Your task to perform on an android device: toggle location history Image 0: 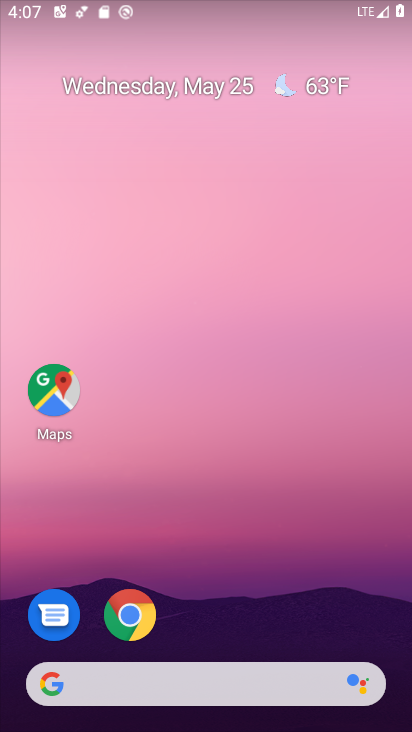
Step 0: drag from (259, 544) to (161, 26)
Your task to perform on an android device: toggle location history Image 1: 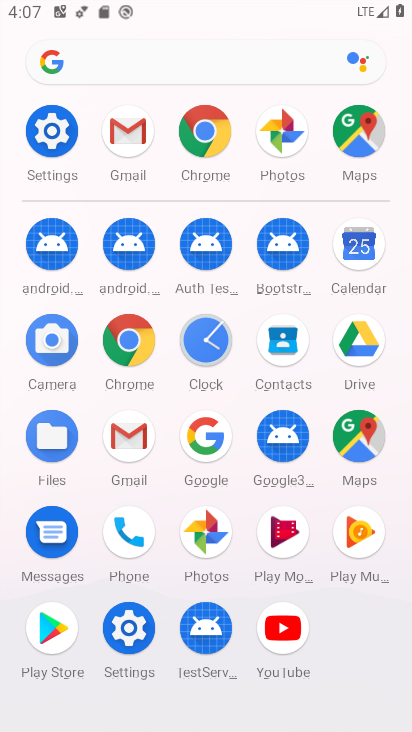
Step 1: click (56, 135)
Your task to perform on an android device: toggle location history Image 2: 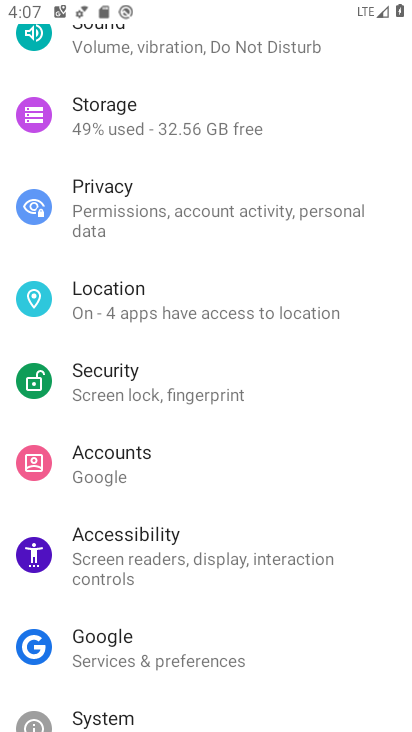
Step 2: click (172, 311)
Your task to perform on an android device: toggle location history Image 3: 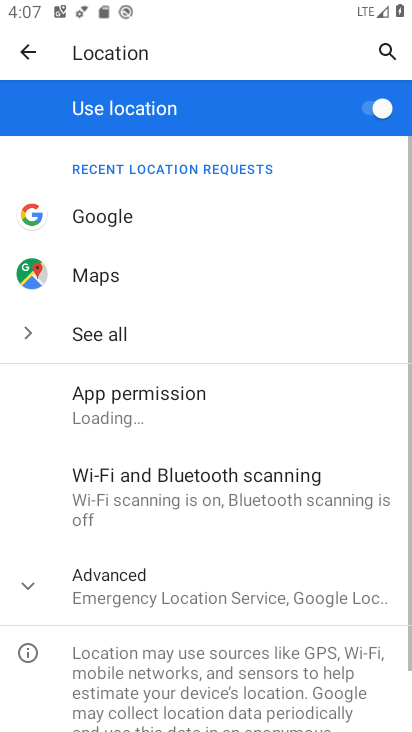
Step 3: click (203, 587)
Your task to perform on an android device: toggle location history Image 4: 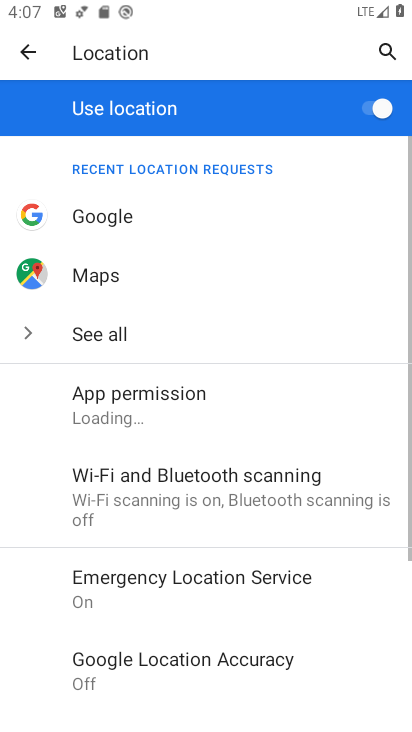
Step 4: drag from (249, 684) to (254, 366)
Your task to perform on an android device: toggle location history Image 5: 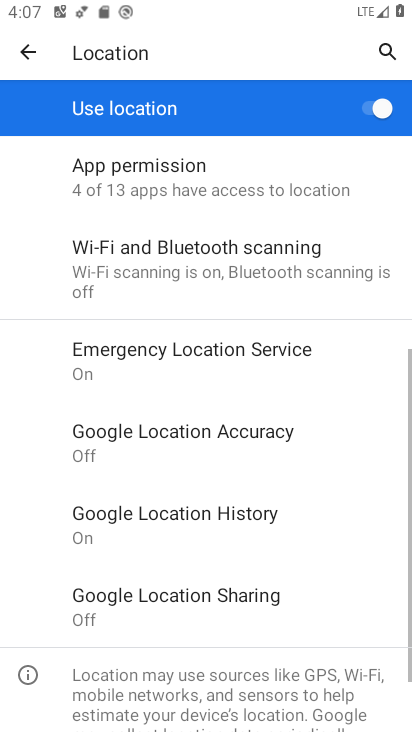
Step 5: click (242, 534)
Your task to perform on an android device: toggle location history Image 6: 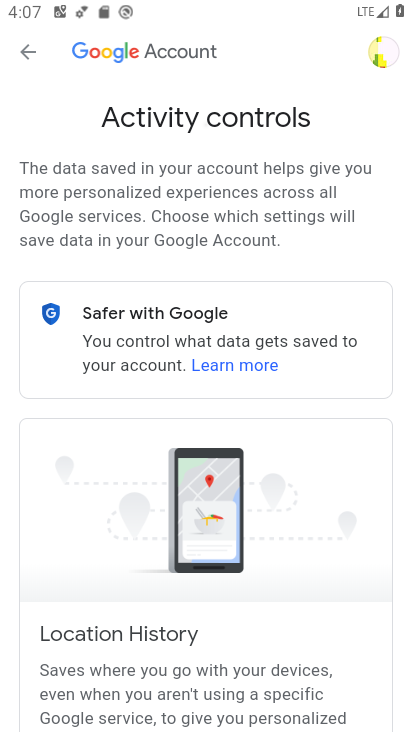
Step 6: drag from (339, 651) to (285, 242)
Your task to perform on an android device: toggle location history Image 7: 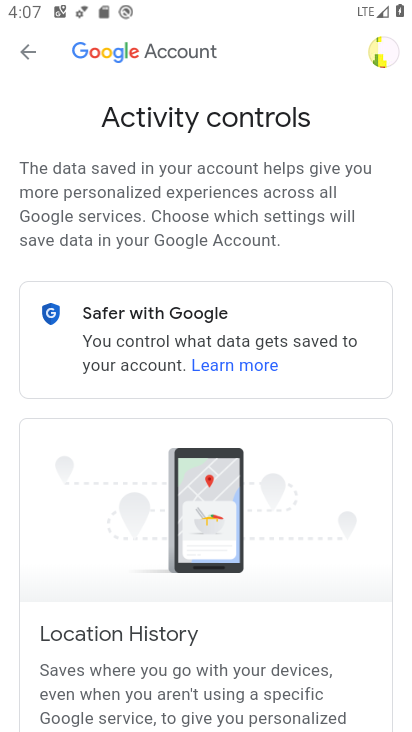
Step 7: drag from (215, 621) to (227, 104)
Your task to perform on an android device: toggle location history Image 8: 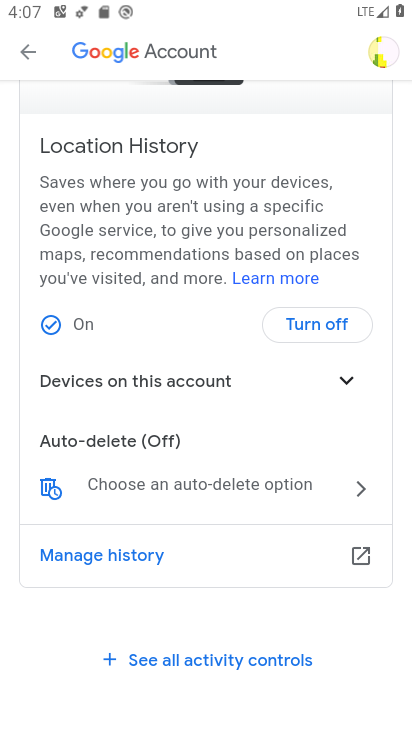
Step 8: click (313, 320)
Your task to perform on an android device: toggle location history Image 9: 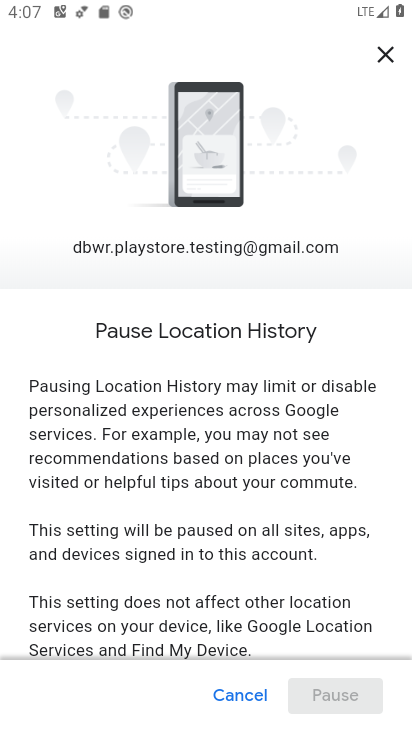
Step 9: drag from (312, 581) to (252, 7)
Your task to perform on an android device: toggle location history Image 10: 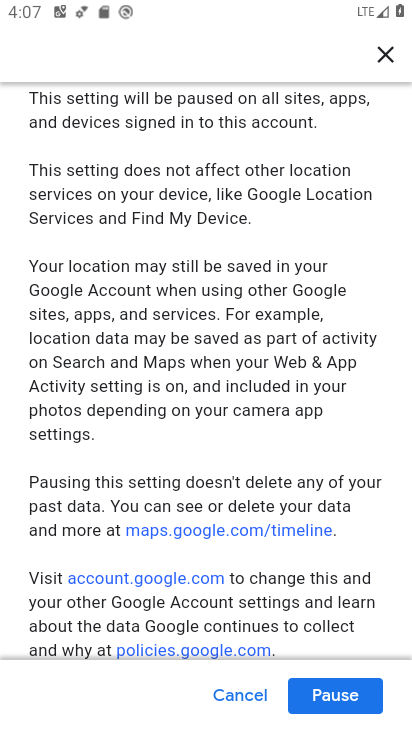
Step 10: click (349, 695)
Your task to perform on an android device: toggle location history Image 11: 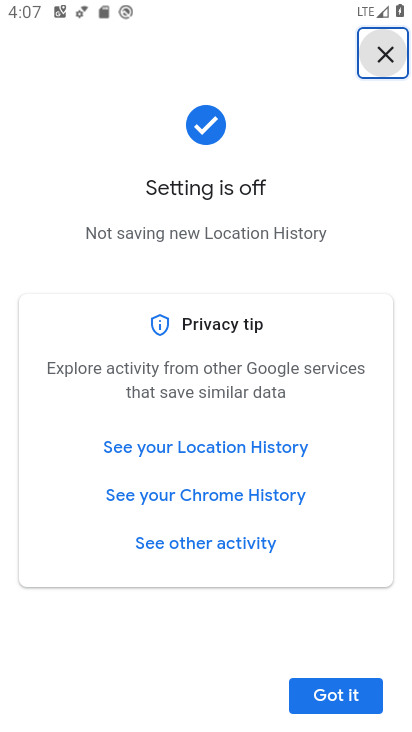
Step 11: click (353, 685)
Your task to perform on an android device: toggle location history Image 12: 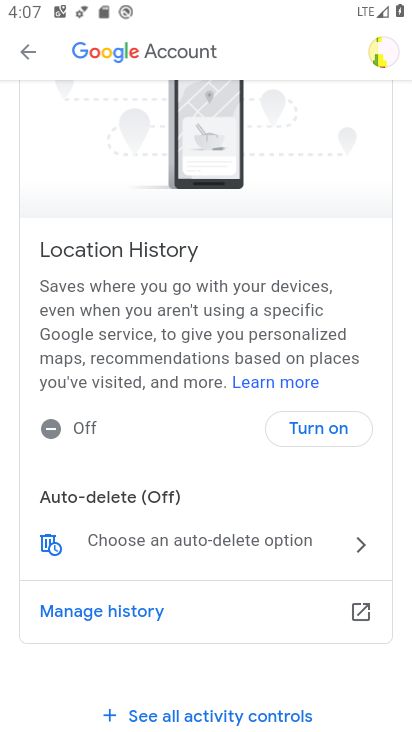
Step 12: task complete